Your task to perform on an android device: toggle wifi Image 0: 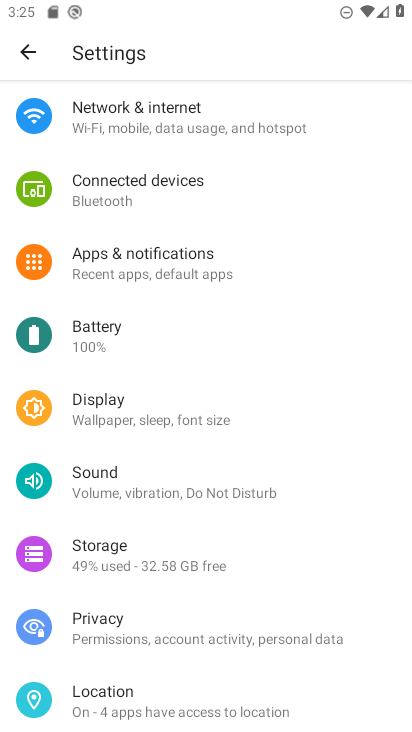
Step 0: click (306, 120)
Your task to perform on an android device: toggle wifi Image 1: 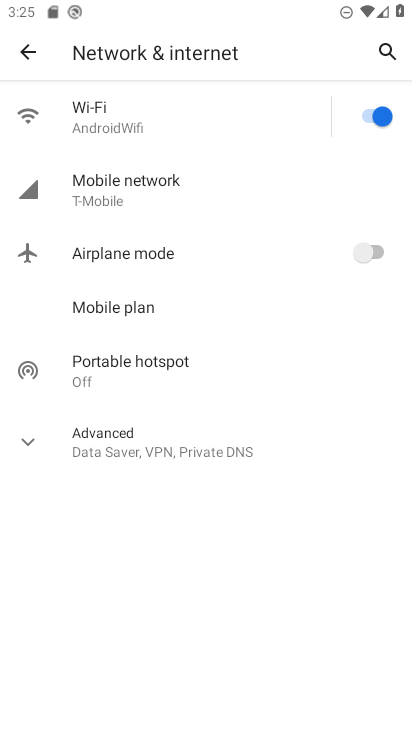
Step 1: click (201, 121)
Your task to perform on an android device: toggle wifi Image 2: 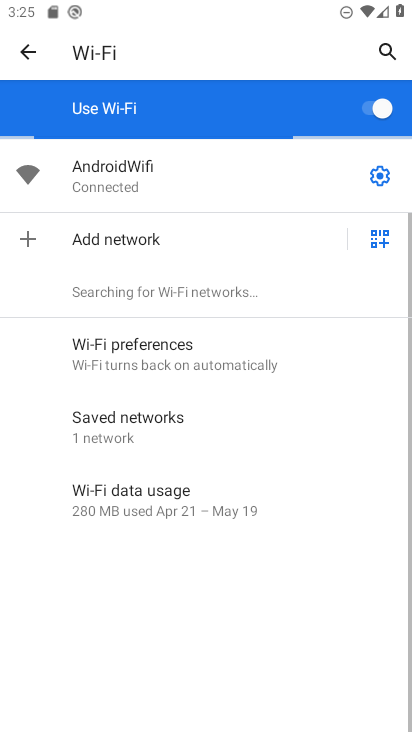
Step 2: click (346, 111)
Your task to perform on an android device: toggle wifi Image 3: 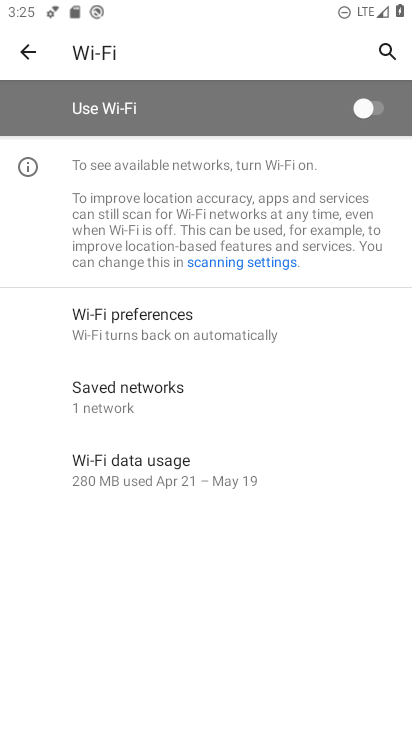
Step 3: task complete